Your task to perform on an android device: find which apps use the phone's location Image 0: 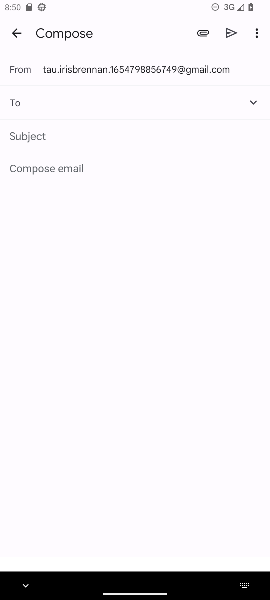
Step 0: press home button
Your task to perform on an android device: find which apps use the phone's location Image 1: 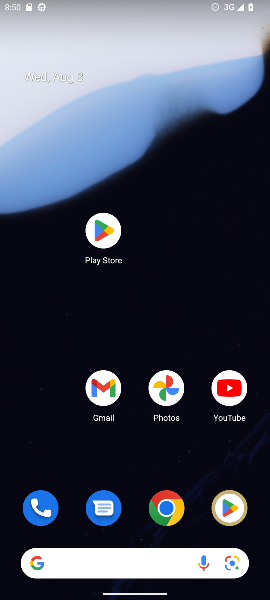
Step 1: drag from (148, 536) to (124, 65)
Your task to perform on an android device: find which apps use the phone's location Image 2: 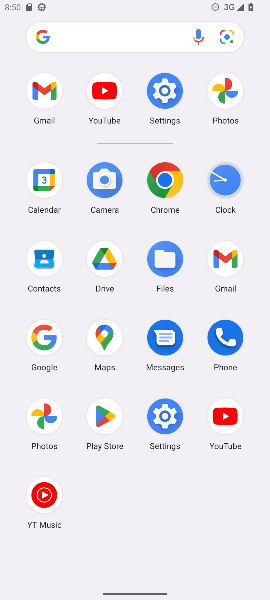
Step 2: click (169, 423)
Your task to perform on an android device: find which apps use the phone's location Image 3: 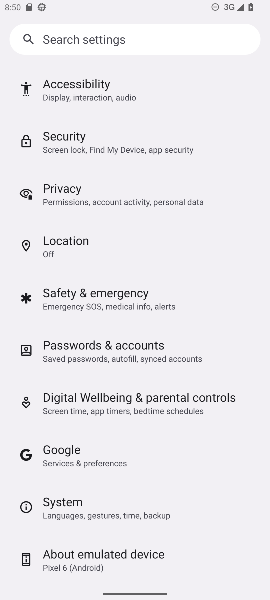
Step 3: click (73, 256)
Your task to perform on an android device: find which apps use the phone's location Image 4: 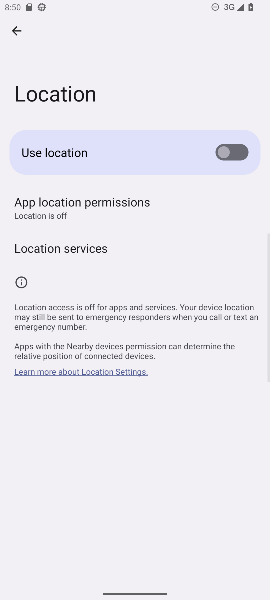
Step 4: click (75, 216)
Your task to perform on an android device: find which apps use the phone's location Image 5: 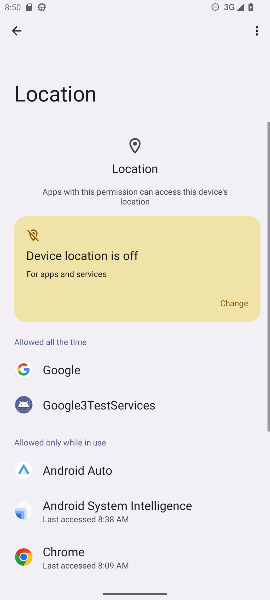
Step 5: task complete